Your task to perform on an android device: check google app version Image 0: 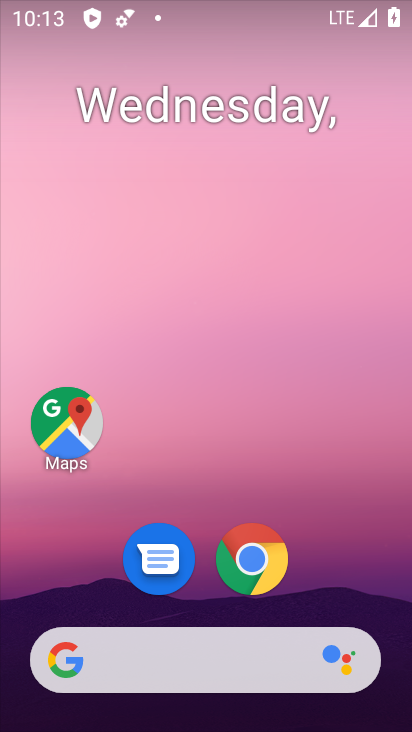
Step 0: drag from (354, 473) to (342, 89)
Your task to perform on an android device: check google app version Image 1: 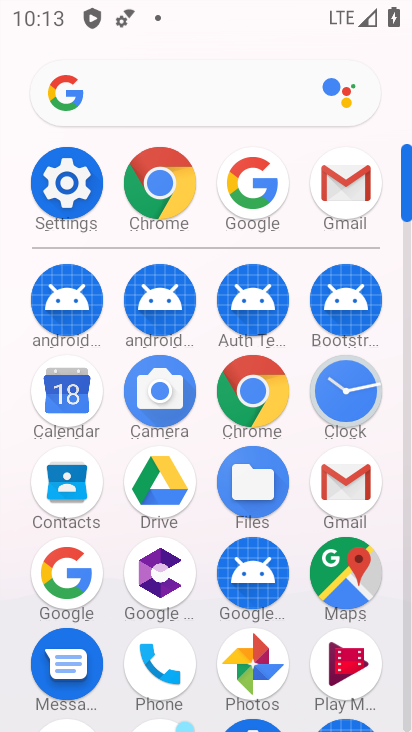
Step 1: click (278, 165)
Your task to perform on an android device: check google app version Image 2: 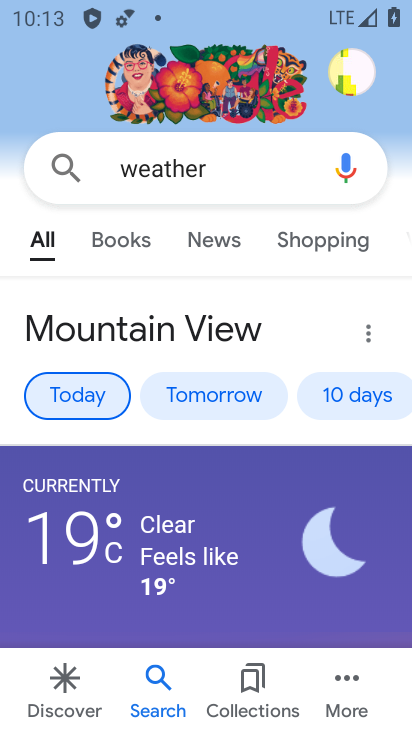
Step 2: click (357, 699)
Your task to perform on an android device: check google app version Image 3: 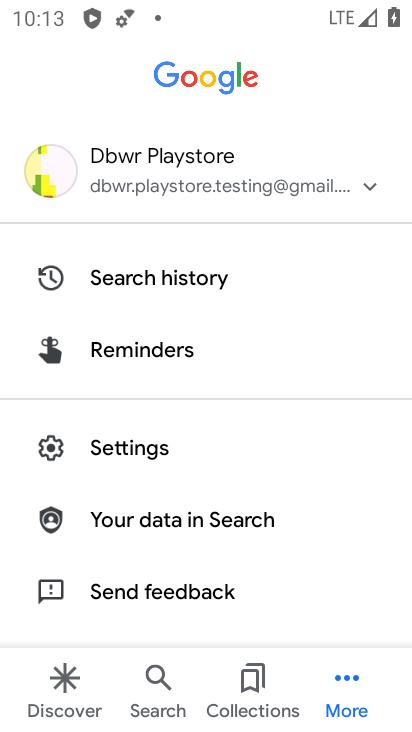
Step 3: click (158, 445)
Your task to perform on an android device: check google app version Image 4: 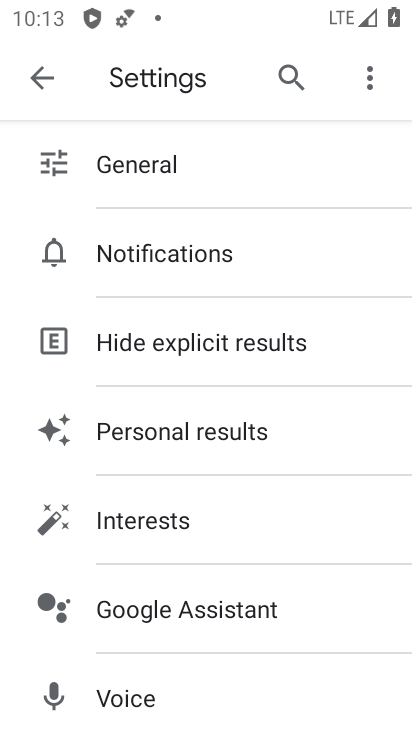
Step 4: drag from (175, 612) to (241, 142)
Your task to perform on an android device: check google app version Image 5: 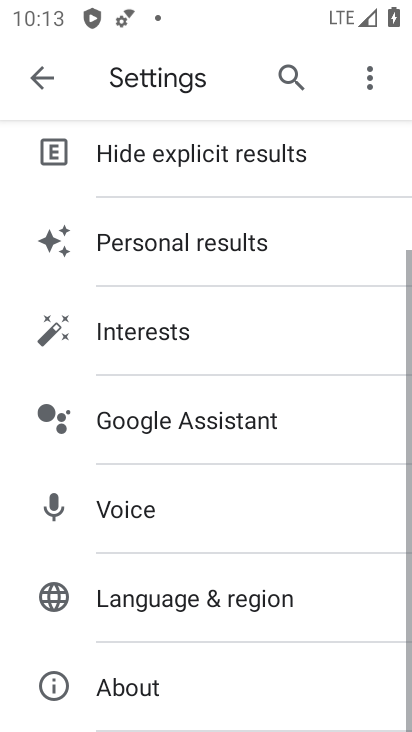
Step 5: drag from (216, 612) to (291, 209)
Your task to perform on an android device: check google app version Image 6: 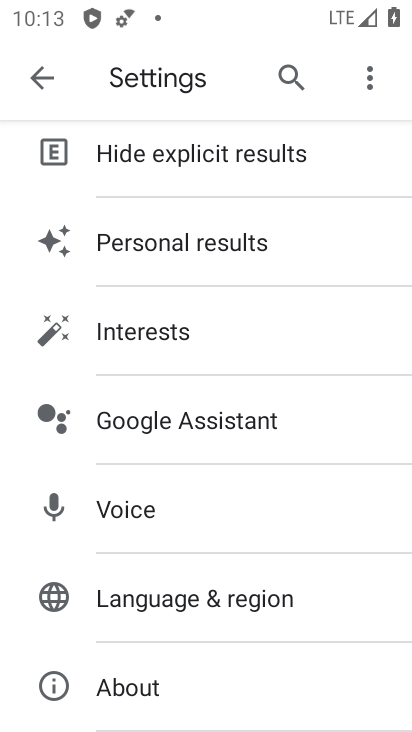
Step 6: click (115, 711)
Your task to perform on an android device: check google app version Image 7: 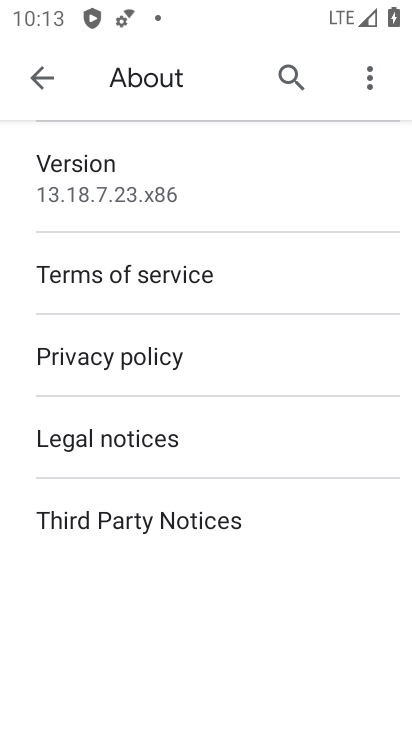
Step 7: click (230, 164)
Your task to perform on an android device: check google app version Image 8: 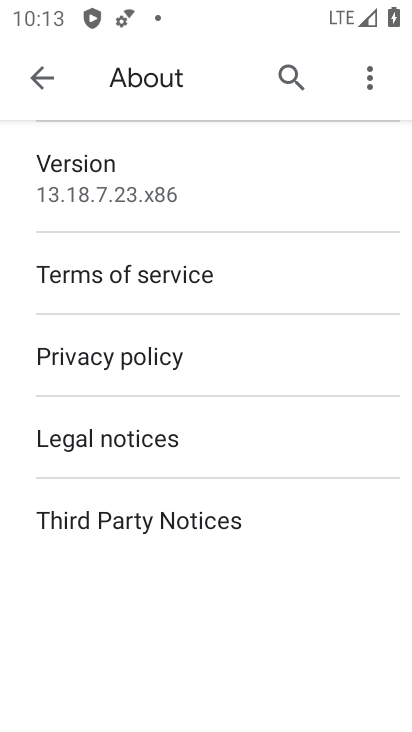
Step 8: task complete